Your task to perform on an android device: What's the weather going to be this weekend? Image 0: 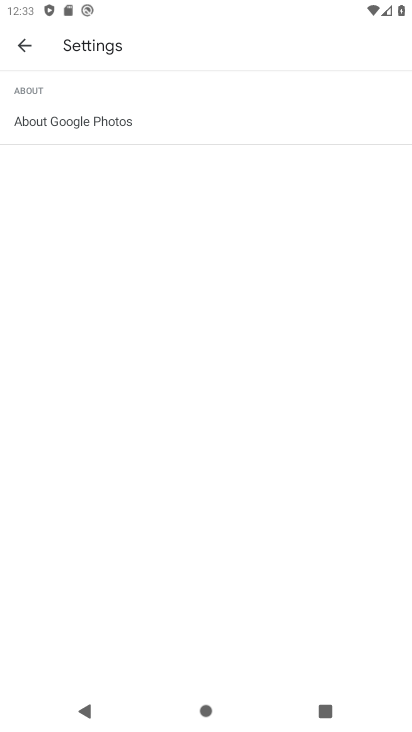
Step 0: press home button
Your task to perform on an android device: What's the weather going to be this weekend? Image 1: 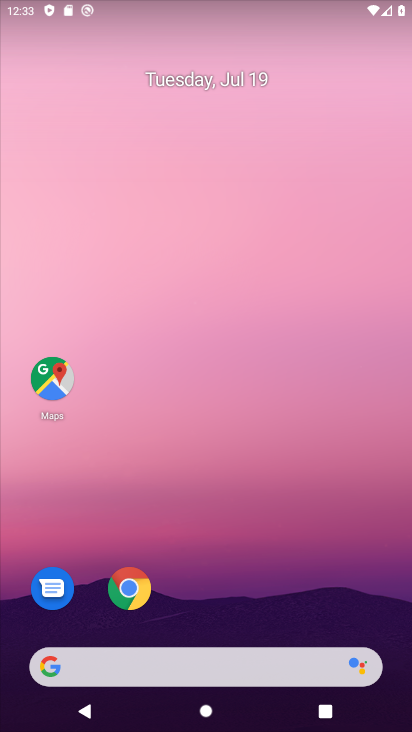
Step 1: drag from (364, 589) to (407, 101)
Your task to perform on an android device: What's the weather going to be this weekend? Image 2: 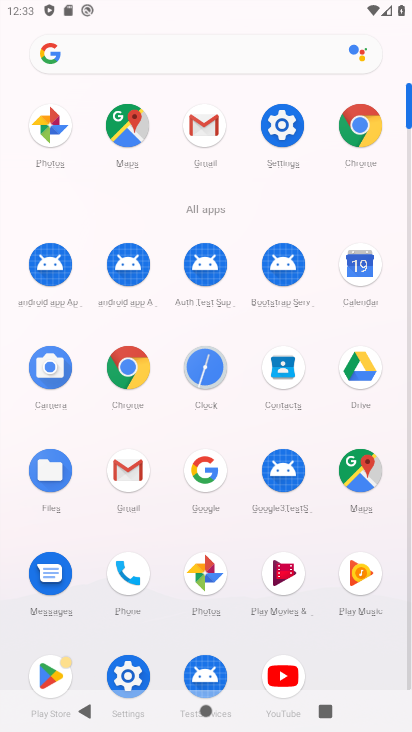
Step 2: click (217, 471)
Your task to perform on an android device: What's the weather going to be this weekend? Image 3: 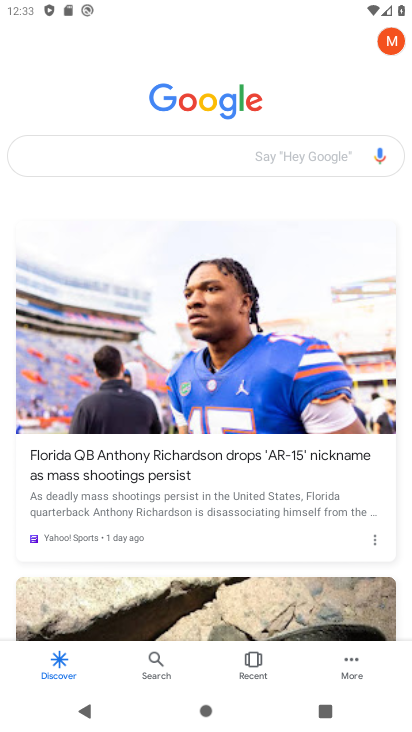
Step 3: click (141, 150)
Your task to perform on an android device: What's the weather going to be this weekend? Image 4: 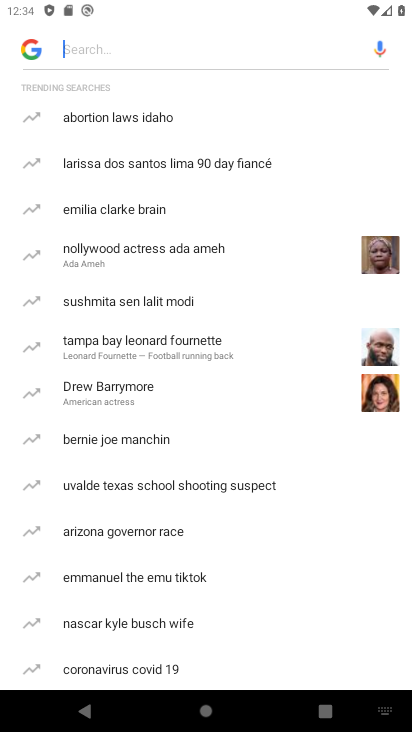
Step 4: type "weather"
Your task to perform on an android device: What's the weather going to be this weekend? Image 5: 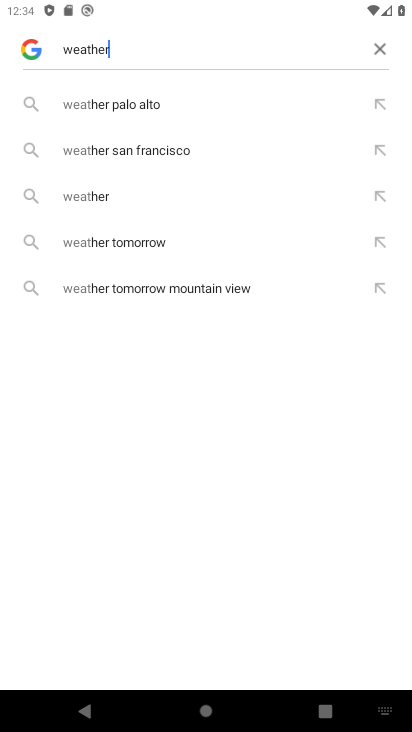
Step 5: press enter
Your task to perform on an android device: What's the weather going to be this weekend? Image 6: 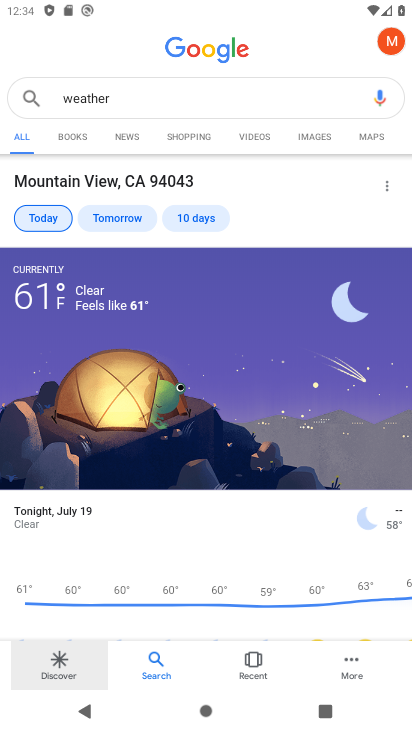
Step 6: task complete